Your task to perform on an android device: show emergency info Image 0: 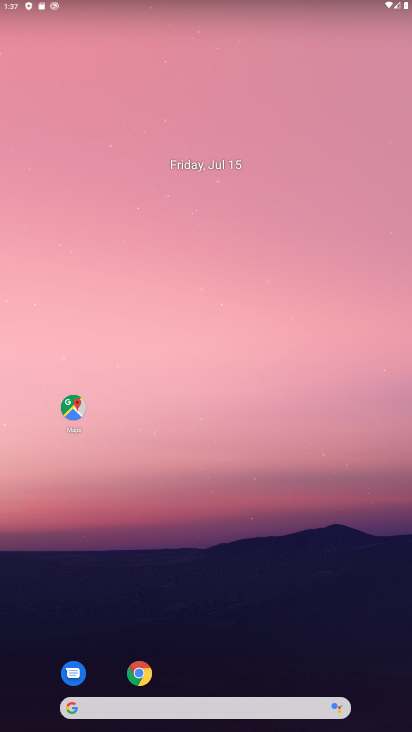
Step 0: drag from (235, 661) to (316, 242)
Your task to perform on an android device: show emergency info Image 1: 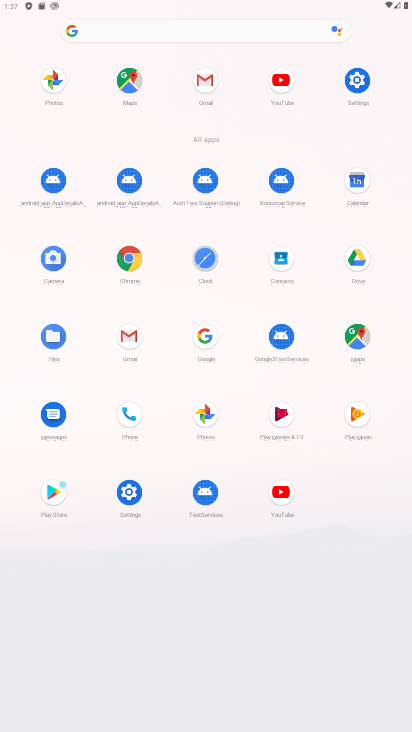
Step 1: click (131, 485)
Your task to perform on an android device: show emergency info Image 2: 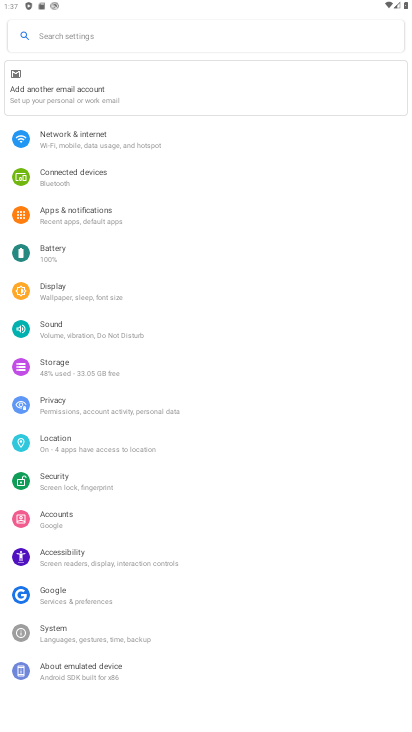
Step 2: drag from (162, 583) to (249, 210)
Your task to perform on an android device: show emergency info Image 3: 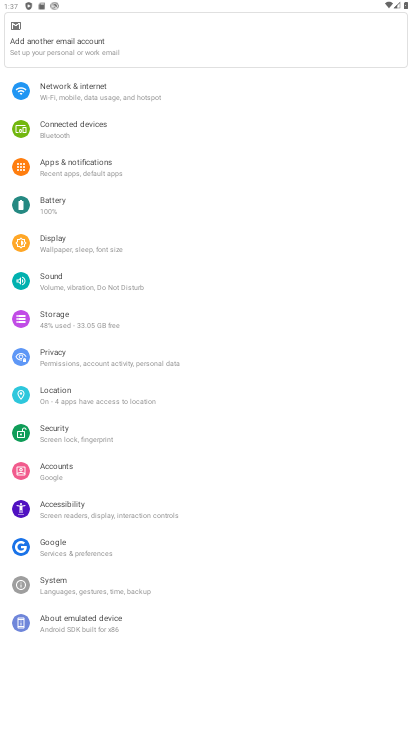
Step 3: click (111, 626)
Your task to perform on an android device: show emergency info Image 4: 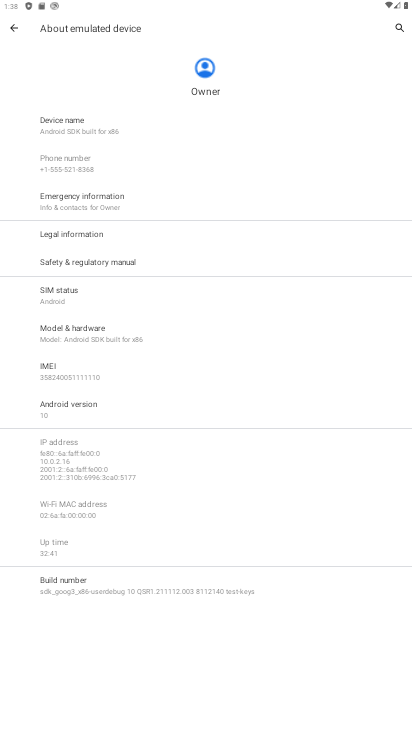
Step 4: click (208, 201)
Your task to perform on an android device: show emergency info Image 5: 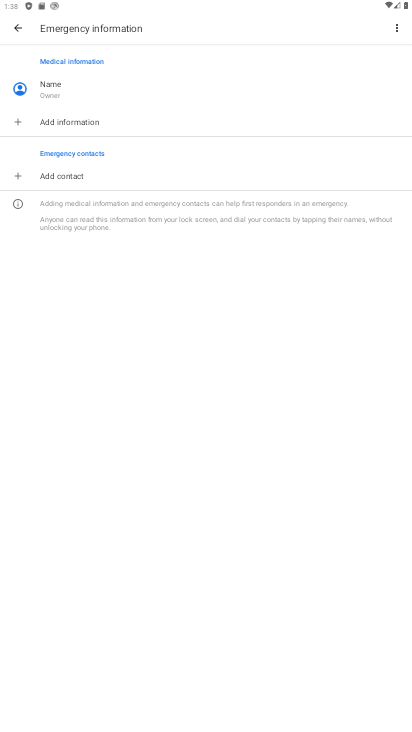
Step 5: task complete